Your task to perform on an android device: Open Google Chrome and open the bookmarks view Image 0: 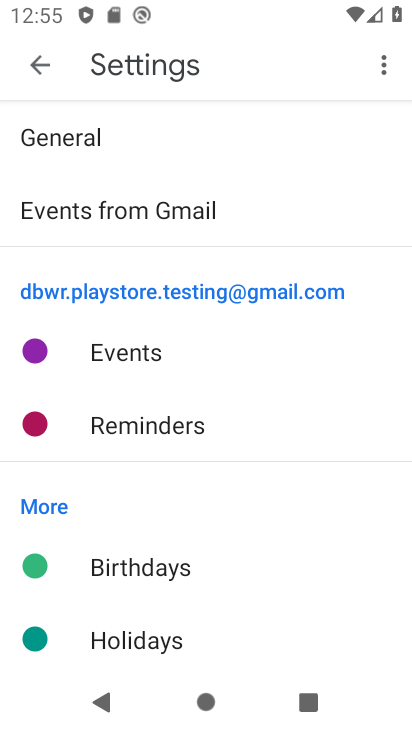
Step 0: press home button
Your task to perform on an android device: Open Google Chrome and open the bookmarks view Image 1: 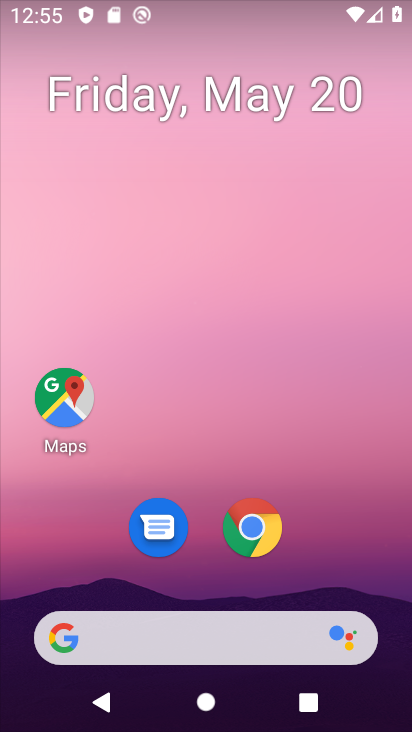
Step 1: click (264, 541)
Your task to perform on an android device: Open Google Chrome and open the bookmarks view Image 2: 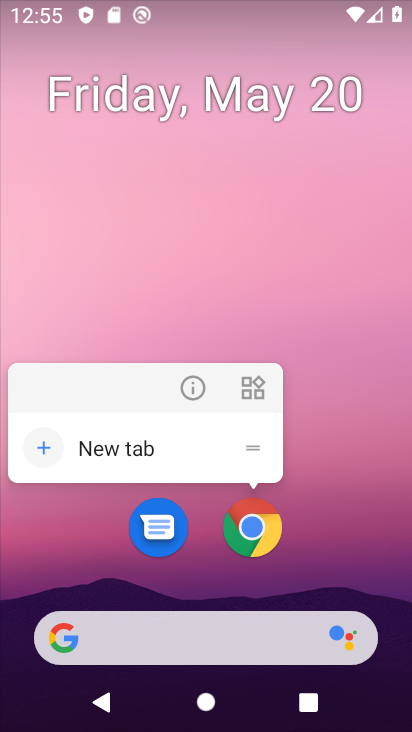
Step 2: click (257, 534)
Your task to perform on an android device: Open Google Chrome and open the bookmarks view Image 3: 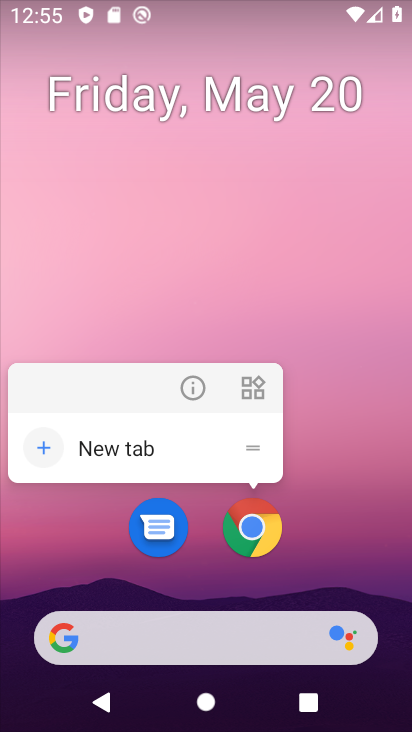
Step 3: click (250, 541)
Your task to perform on an android device: Open Google Chrome and open the bookmarks view Image 4: 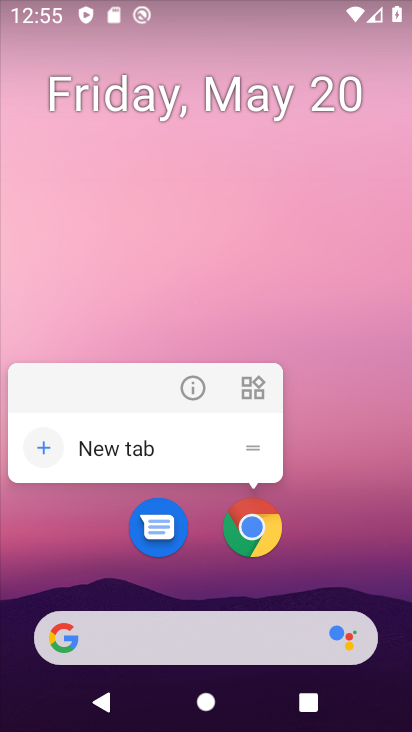
Step 4: click (261, 529)
Your task to perform on an android device: Open Google Chrome and open the bookmarks view Image 5: 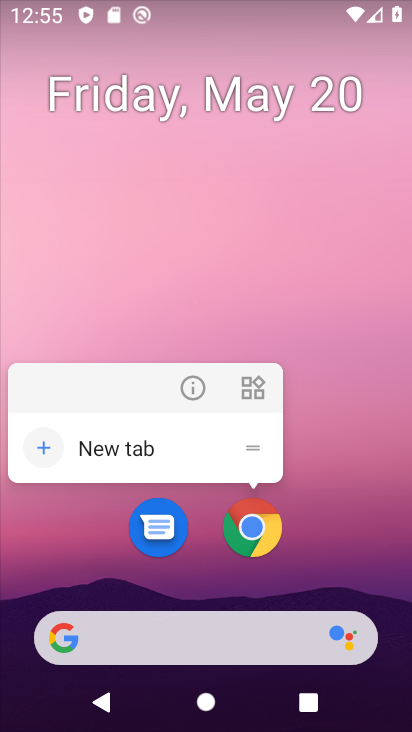
Step 5: click (252, 539)
Your task to perform on an android device: Open Google Chrome and open the bookmarks view Image 6: 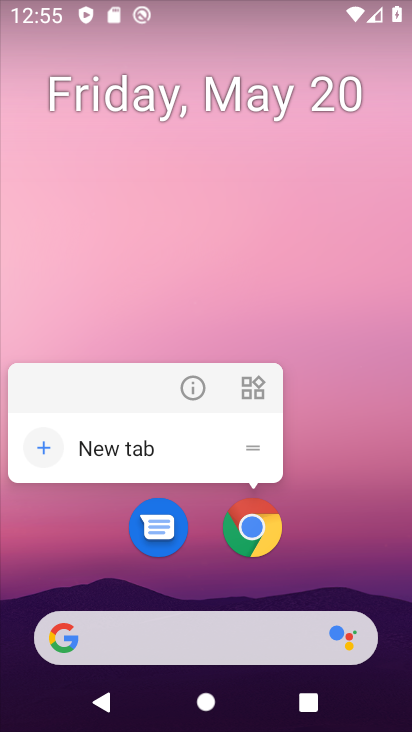
Step 6: click (248, 544)
Your task to perform on an android device: Open Google Chrome and open the bookmarks view Image 7: 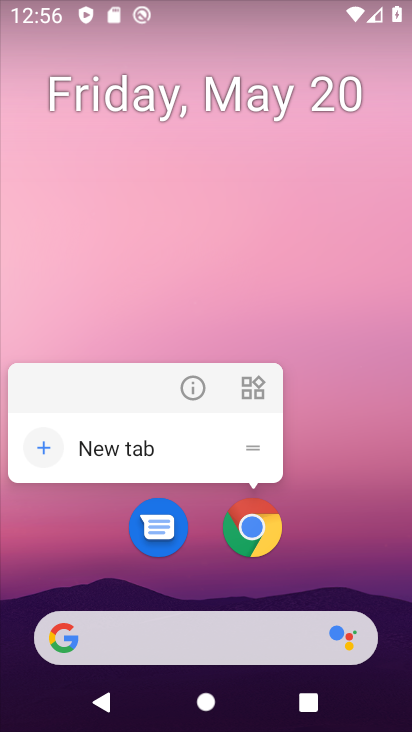
Step 7: click (251, 537)
Your task to perform on an android device: Open Google Chrome and open the bookmarks view Image 8: 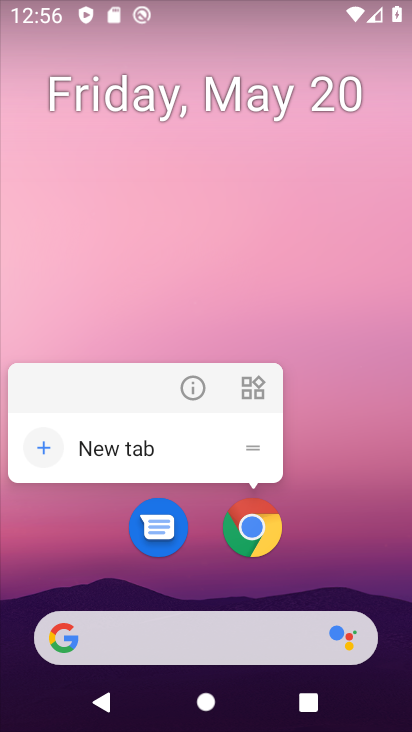
Step 8: click (253, 529)
Your task to perform on an android device: Open Google Chrome and open the bookmarks view Image 9: 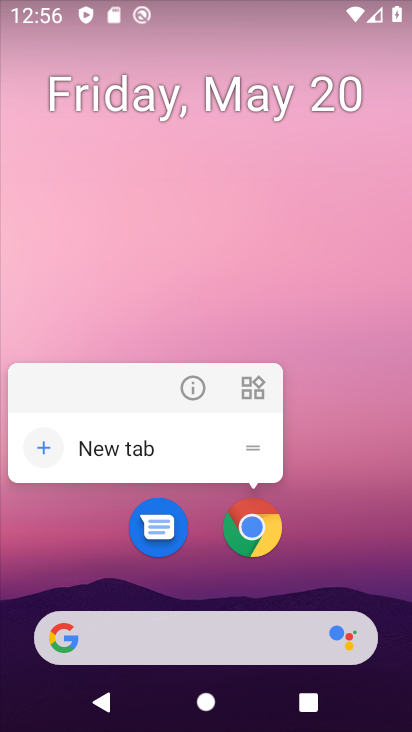
Step 9: click (254, 542)
Your task to perform on an android device: Open Google Chrome and open the bookmarks view Image 10: 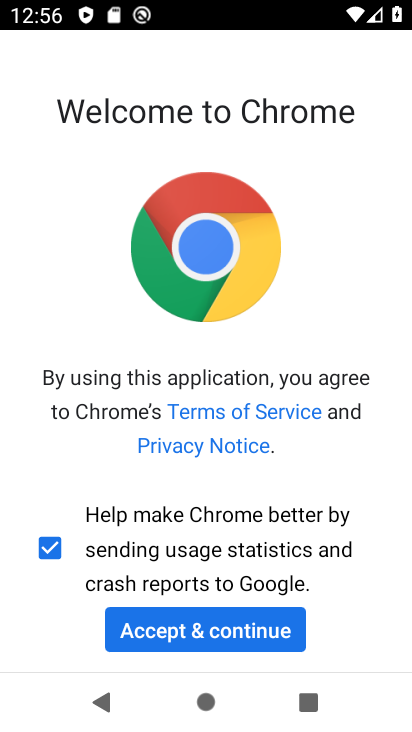
Step 10: click (208, 630)
Your task to perform on an android device: Open Google Chrome and open the bookmarks view Image 11: 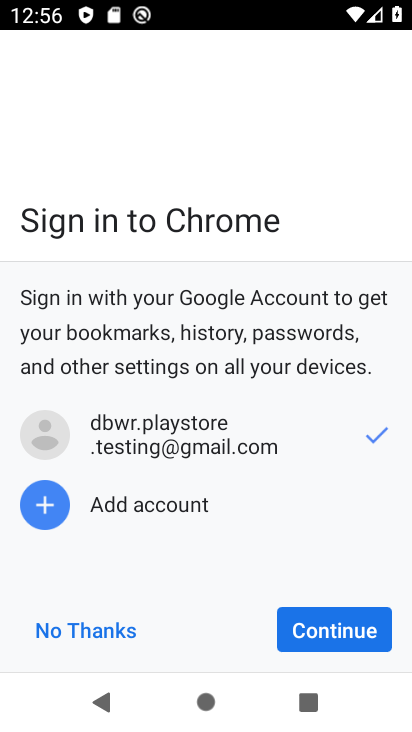
Step 11: click (313, 626)
Your task to perform on an android device: Open Google Chrome and open the bookmarks view Image 12: 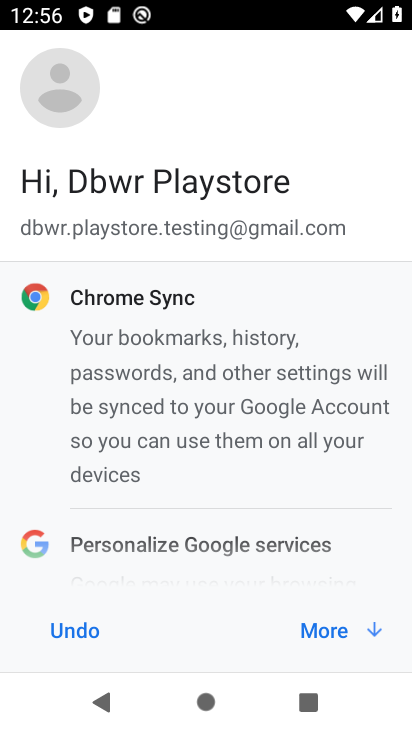
Step 12: click (315, 626)
Your task to perform on an android device: Open Google Chrome and open the bookmarks view Image 13: 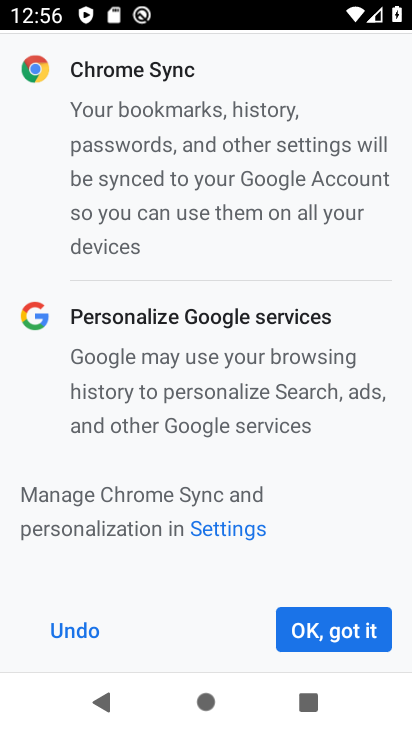
Step 13: click (319, 624)
Your task to perform on an android device: Open Google Chrome and open the bookmarks view Image 14: 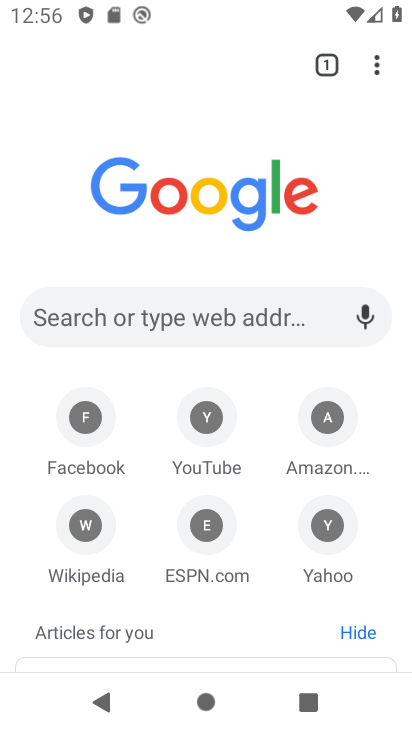
Step 14: task complete